Your task to perform on an android device: Search for Italian restaurants on Maps Image 0: 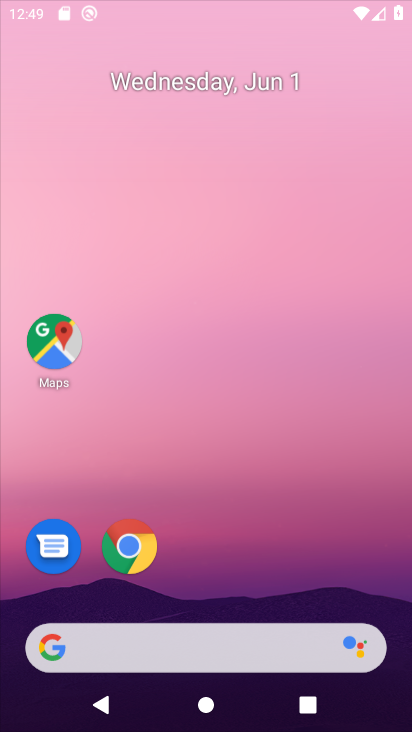
Step 0: click (121, 547)
Your task to perform on an android device: Search for Italian restaurants on Maps Image 1: 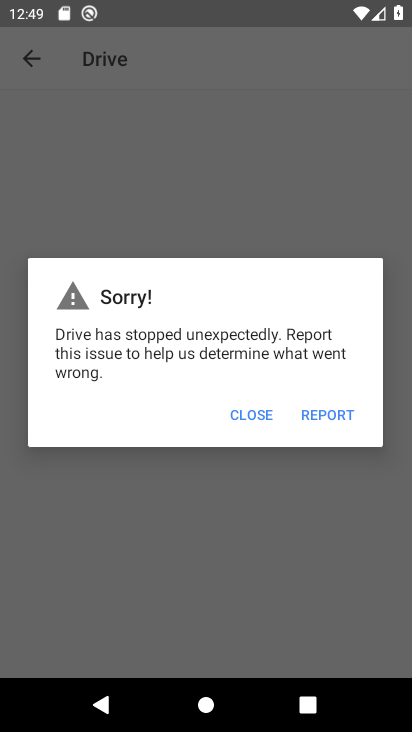
Step 1: click (252, 422)
Your task to perform on an android device: Search for Italian restaurants on Maps Image 2: 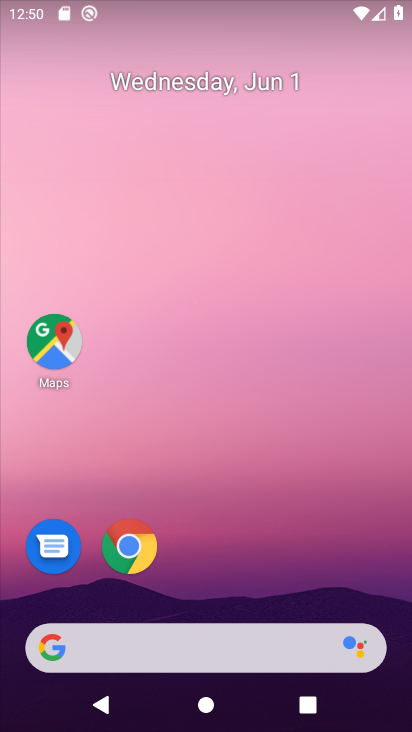
Step 2: click (59, 345)
Your task to perform on an android device: Search for Italian restaurants on Maps Image 3: 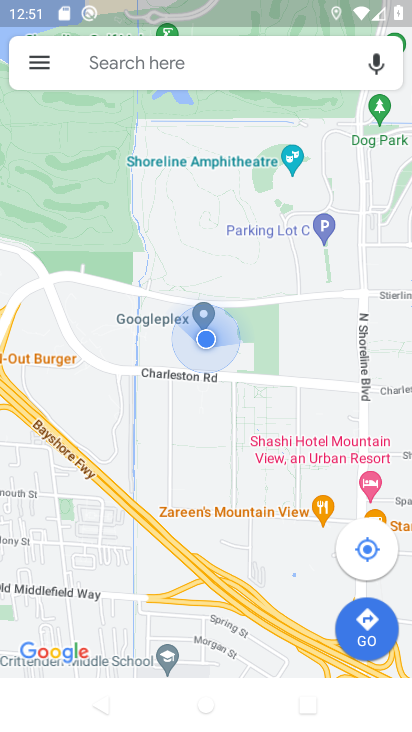
Step 3: click (138, 51)
Your task to perform on an android device: Search for Italian restaurants on Maps Image 4: 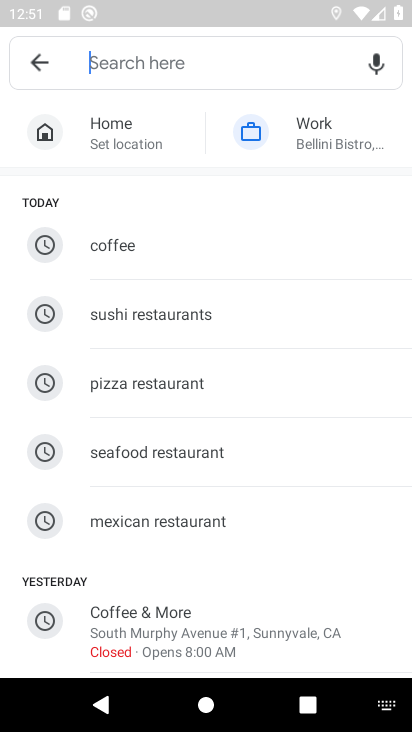
Step 4: type "italian restaurants"
Your task to perform on an android device: Search for Italian restaurants on Maps Image 5: 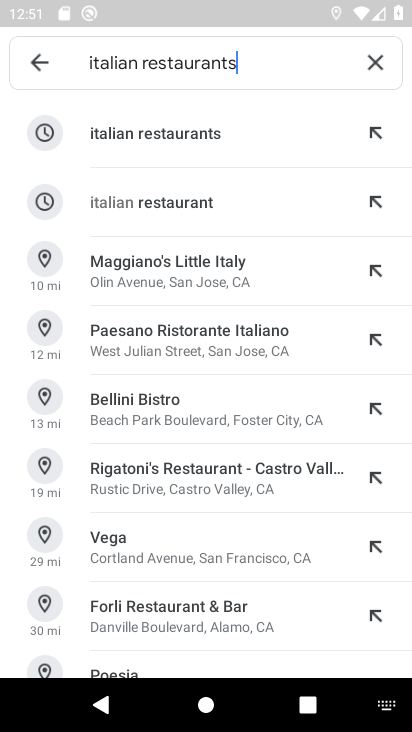
Step 5: click (159, 135)
Your task to perform on an android device: Search for Italian restaurants on Maps Image 6: 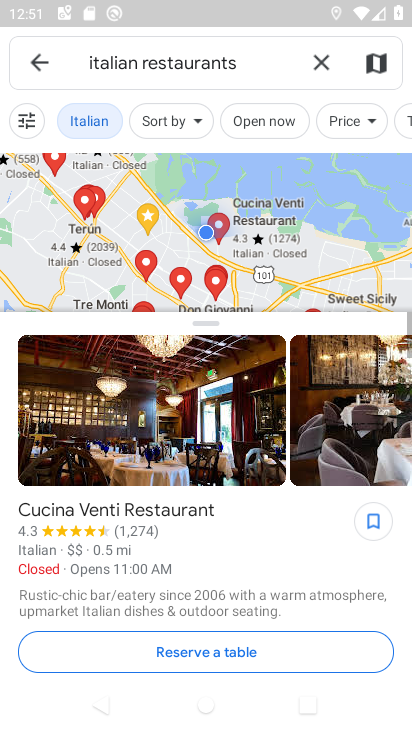
Step 6: task complete